Your task to perform on an android device: Open battery settings Image 0: 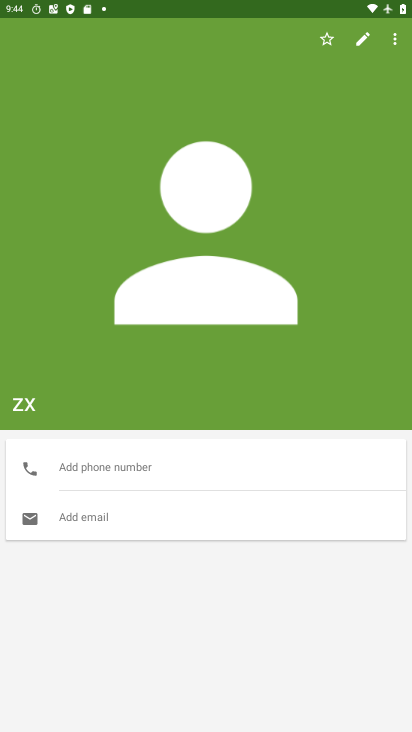
Step 0: press home button
Your task to perform on an android device: Open battery settings Image 1: 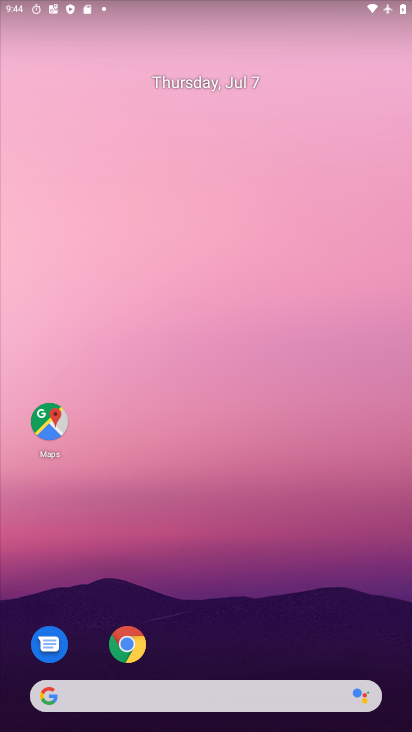
Step 1: drag from (287, 585) to (232, 31)
Your task to perform on an android device: Open battery settings Image 2: 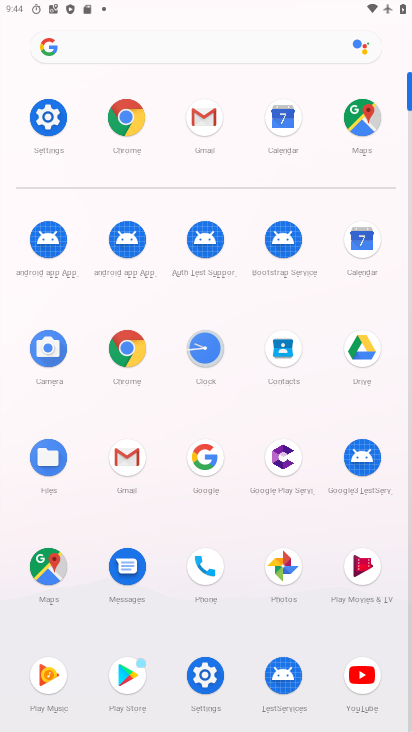
Step 2: click (52, 113)
Your task to perform on an android device: Open battery settings Image 3: 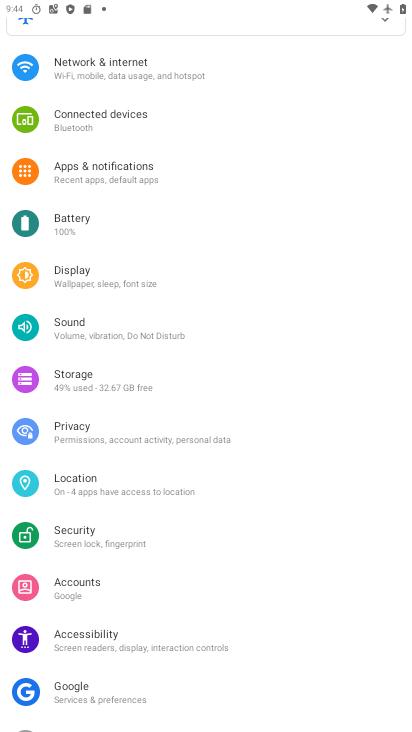
Step 3: click (73, 216)
Your task to perform on an android device: Open battery settings Image 4: 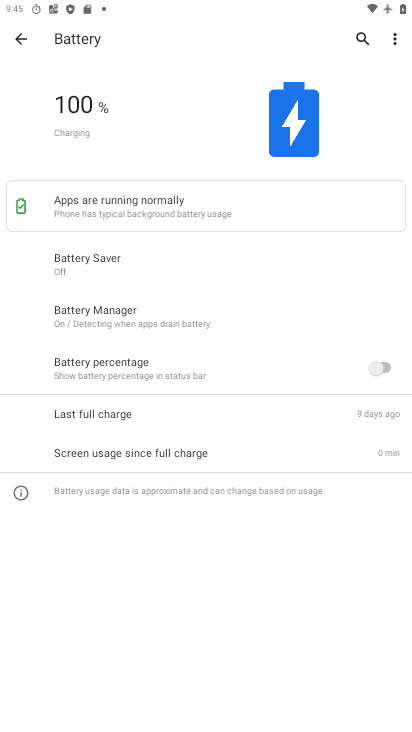
Step 4: task complete